Your task to perform on an android device: toggle translation in the chrome app Image 0: 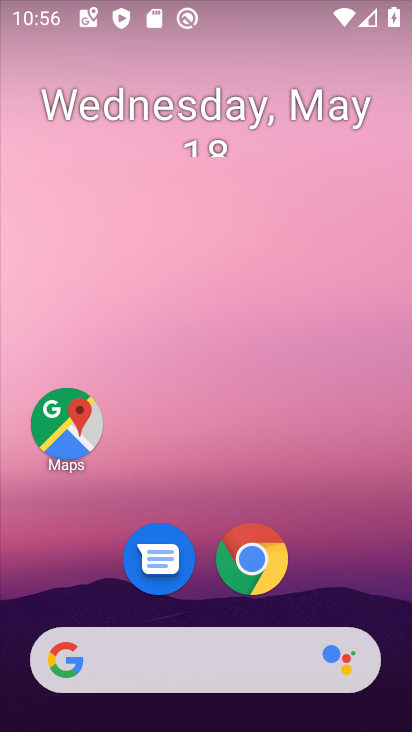
Step 0: click (270, 571)
Your task to perform on an android device: toggle translation in the chrome app Image 1: 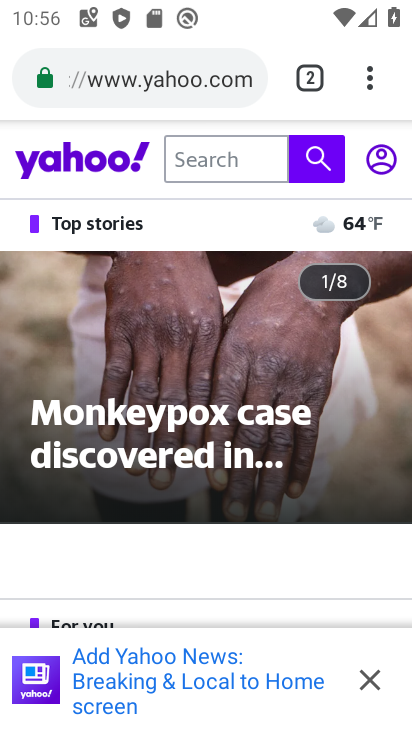
Step 1: drag from (372, 80) to (107, 614)
Your task to perform on an android device: toggle translation in the chrome app Image 2: 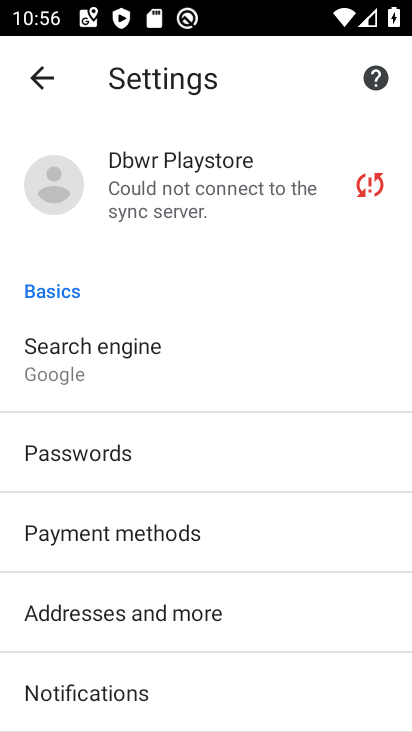
Step 2: drag from (188, 619) to (266, 278)
Your task to perform on an android device: toggle translation in the chrome app Image 3: 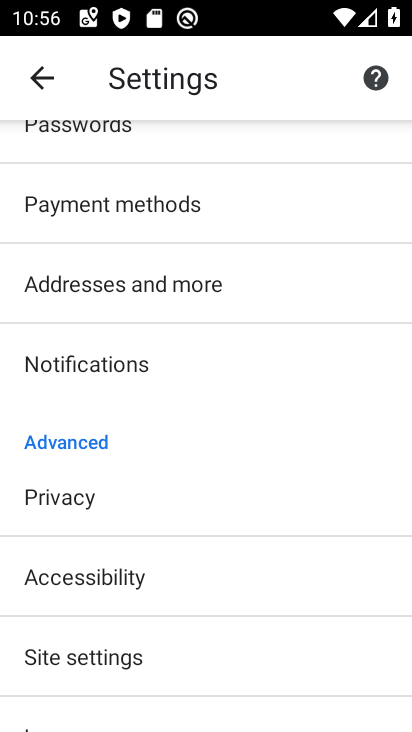
Step 3: click (143, 673)
Your task to perform on an android device: toggle translation in the chrome app Image 4: 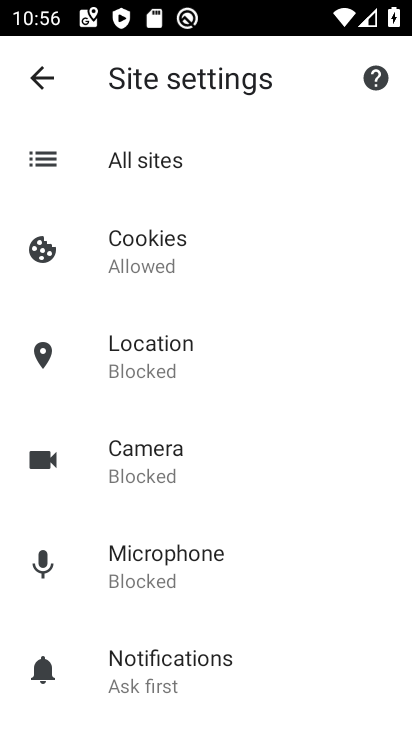
Step 4: drag from (189, 680) to (337, 173)
Your task to perform on an android device: toggle translation in the chrome app Image 5: 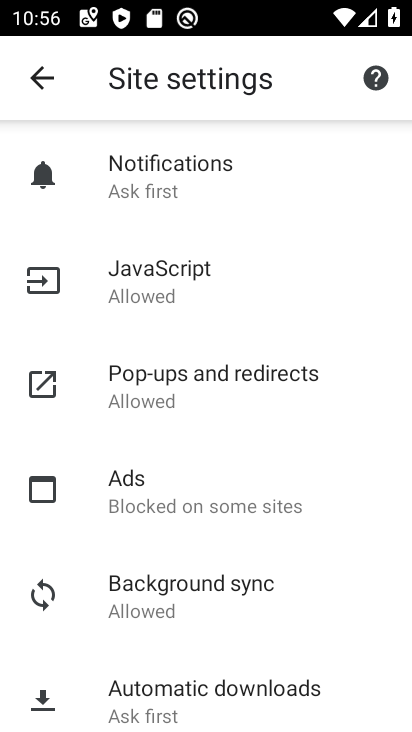
Step 5: click (51, 77)
Your task to perform on an android device: toggle translation in the chrome app Image 6: 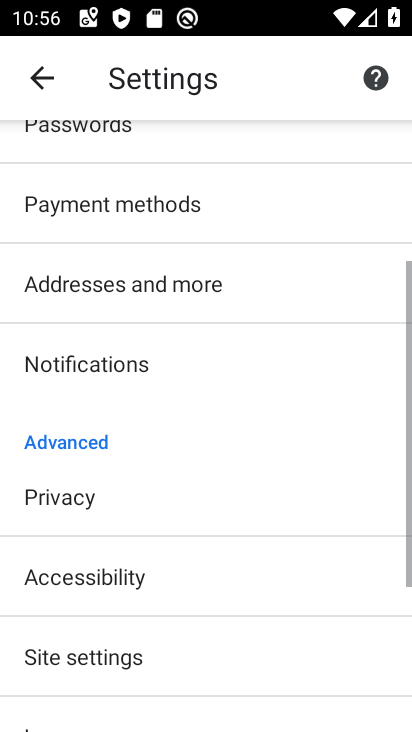
Step 6: drag from (120, 653) to (232, 246)
Your task to perform on an android device: toggle translation in the chrome app Image 7: 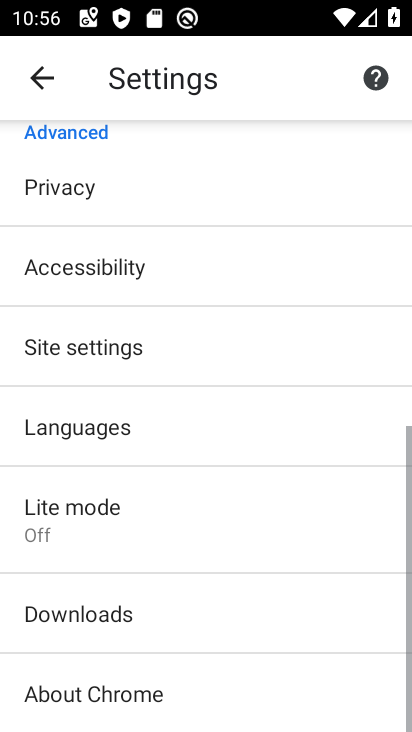
Step 7: click (96, 426)
Your task to perform on an android device: toggle translation in the chrome app Image 8: 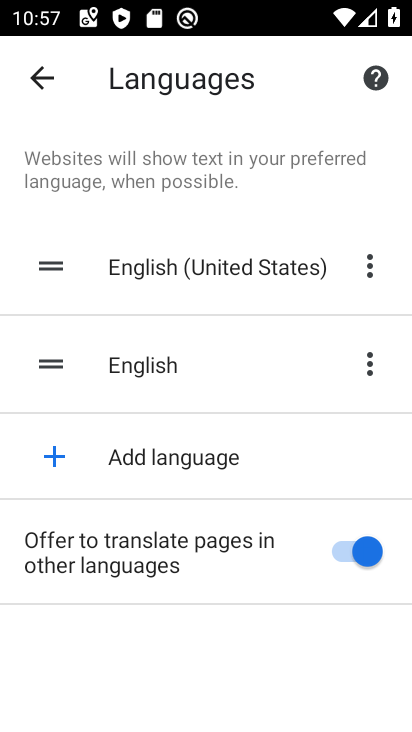
Step 8: click (363, 536)
Your task to perform on an android device: toggle translation in the chrome app Image 9: 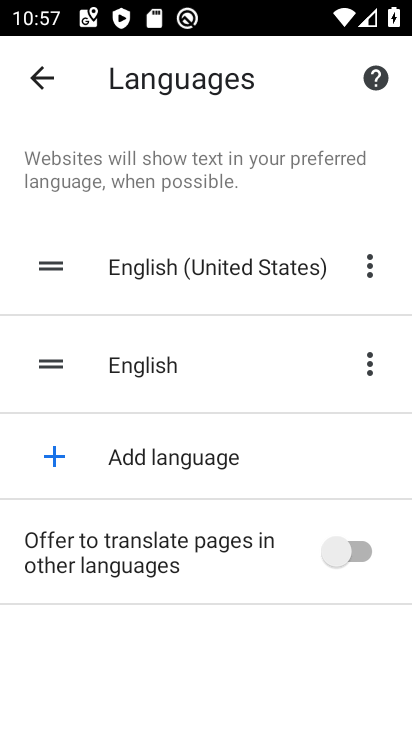
Step 9: task complete